Your task to perform on an android device: choose inbox layout in the gmail app Image 0: 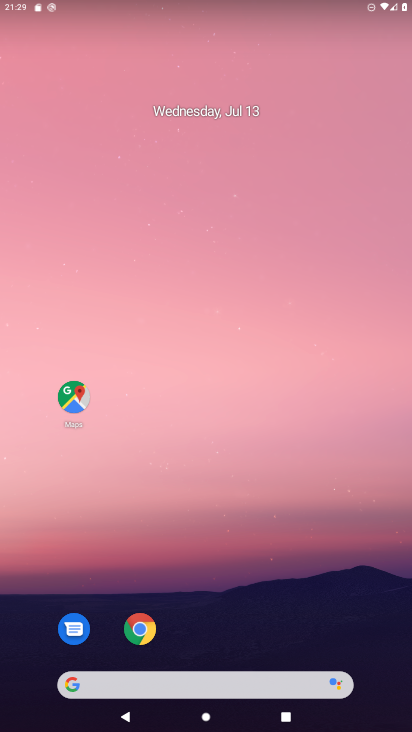
Step 0: drag from (245, 601) to (213, 55)
Your task to perform on an android device: choose inbox layout in the gmail app Image 1: 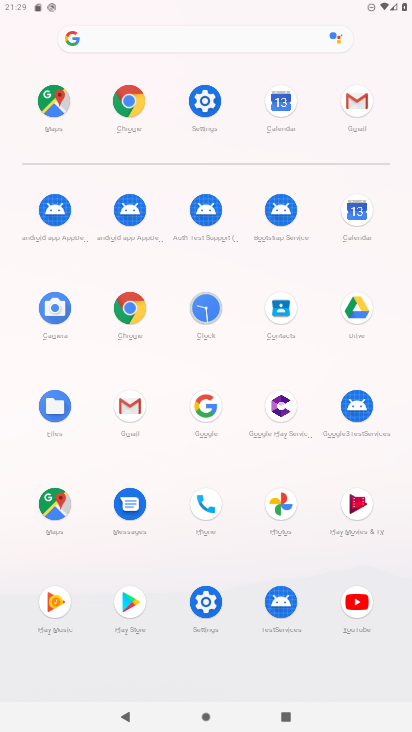
Step 1: click (130, 404)
Your task to perform on an android device: choose inbox layout in the gmail app Image 2: 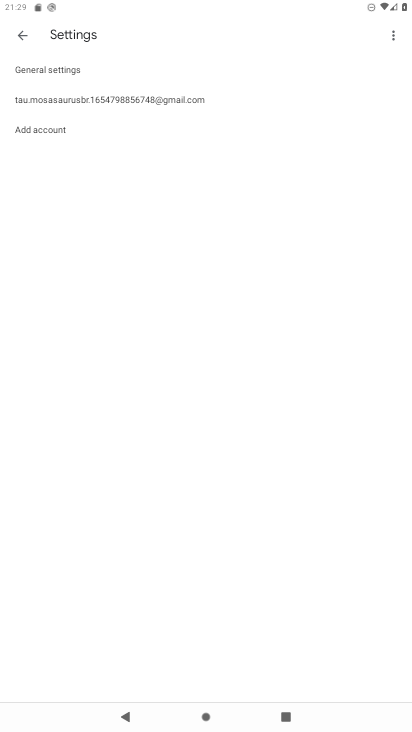
Step 2: click (162, 96)
Your task to perform on an android device: choose inbox layout in the gmail app Image 3: 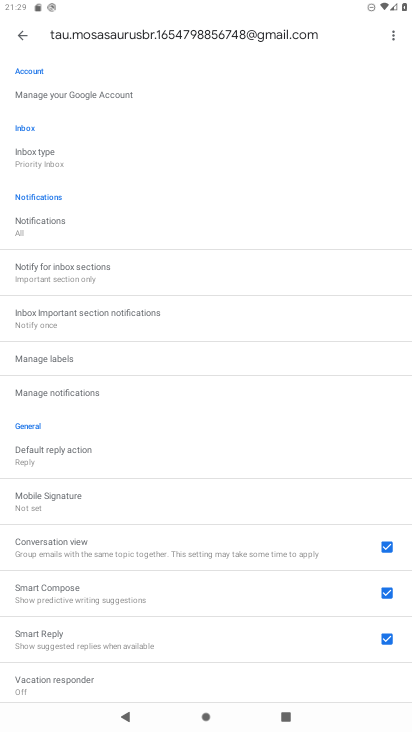
Step 3: click (40, 147)
Your task to perform on an android device: choose inbox layout in the gmail app Image 4: 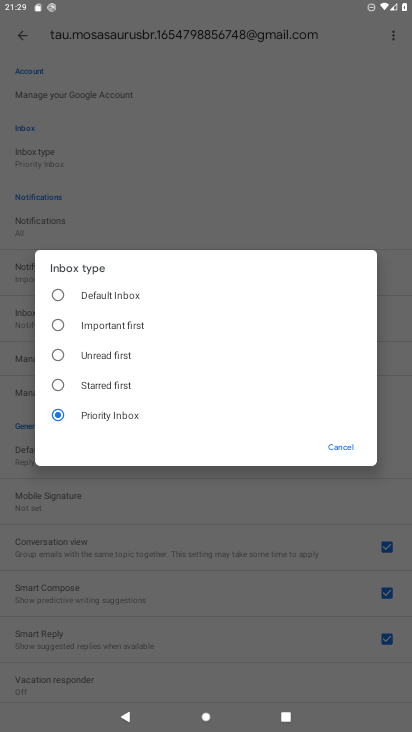
Step 4: click (77, 320)
Your task to perform on an android device: choose inbox layout in the gmail app Image 5: 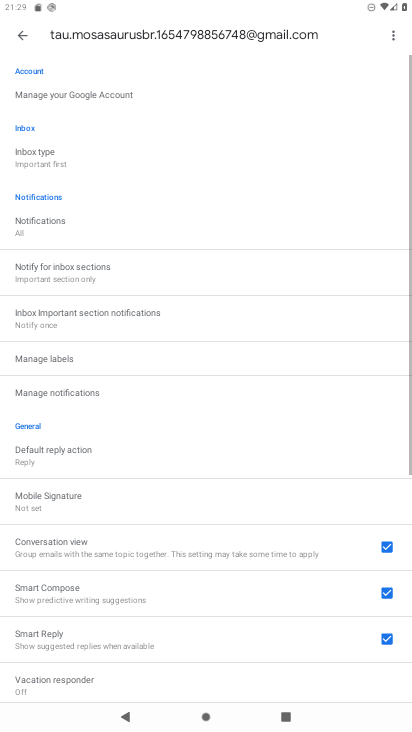
Step 5: task complete